Your task to perform on an android device: check battery use Image 0: 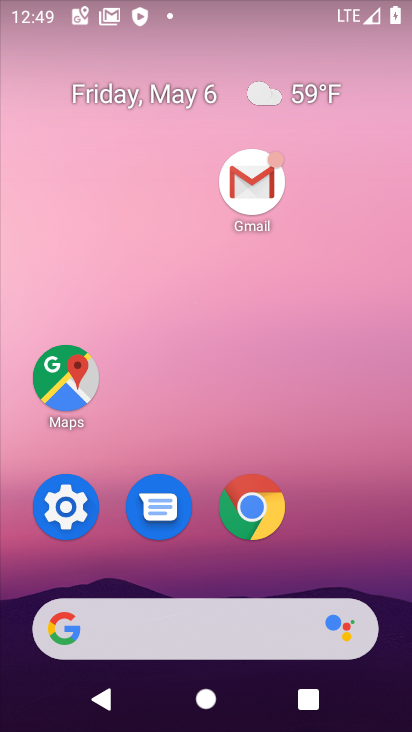
Step 0: click (61, 508)
Your task to perform on an android device: check battery use Image 1: 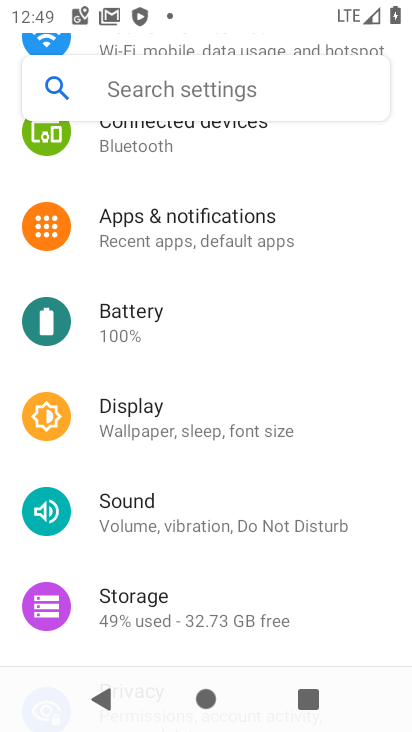
Step 1: click (140, 318)
Your task to perform on an android device: check battery use Image 2: 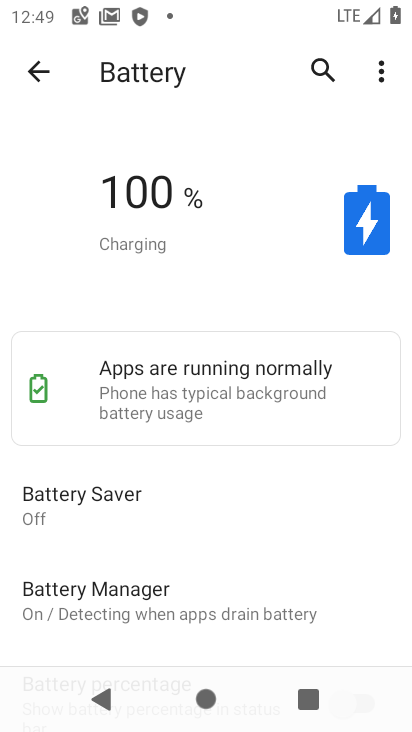
Step 2: task complete